Your task to perform on an android device: Search for Italian restaurants on Maps Image 0: 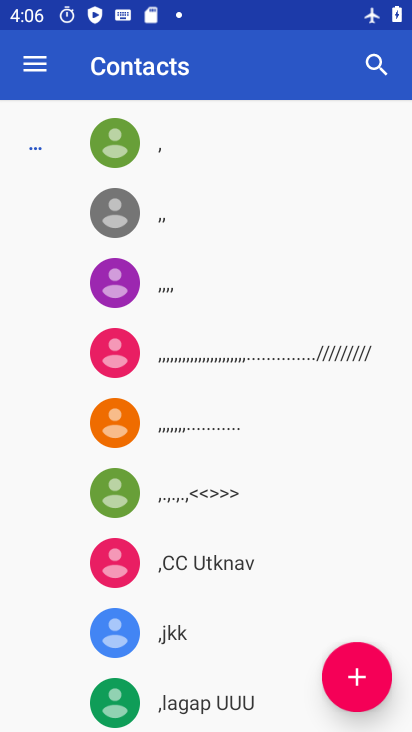
Step 0: press home button
Your task to perform on an android device: Search for Italian restaurants on Maps Image 1: 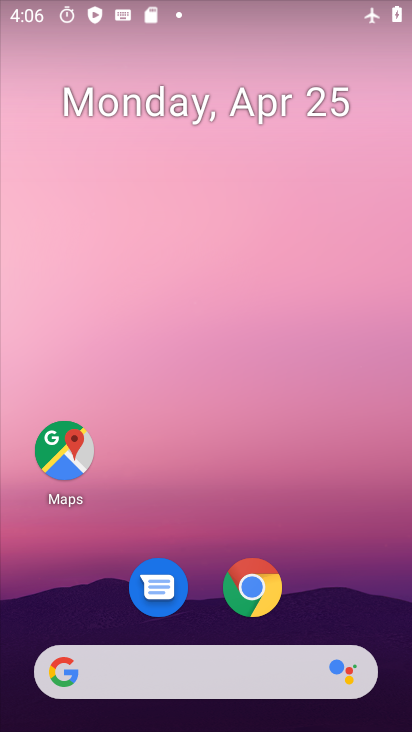
Step 1: click (74, 447)
Your task to perform on an android device: Search for Italian restaurants on Maps Image 2: 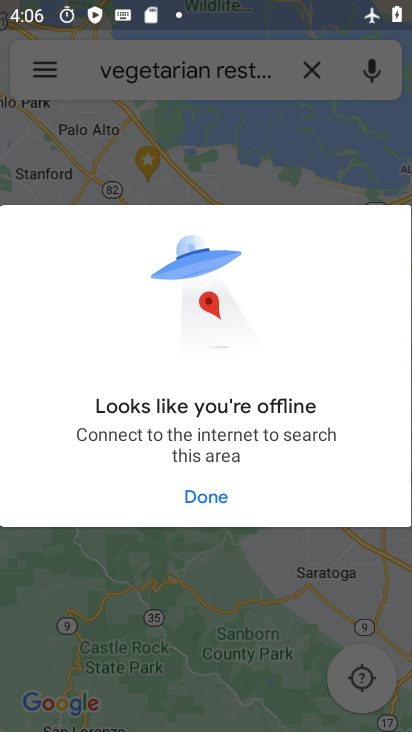
Step 2: click (208, 500)
Your task to perform on an android device: Search for Italian restaurants on Maps Image 3: 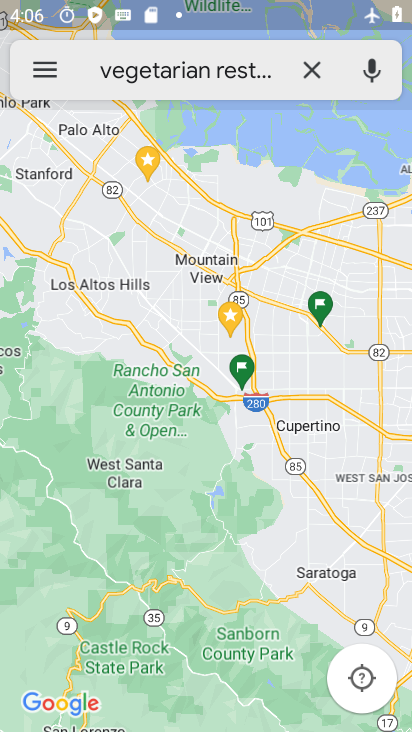
Step 3: click (226, 86)
Your task to perform on an android device: Search for Italian restaurants on Maps Image 4: 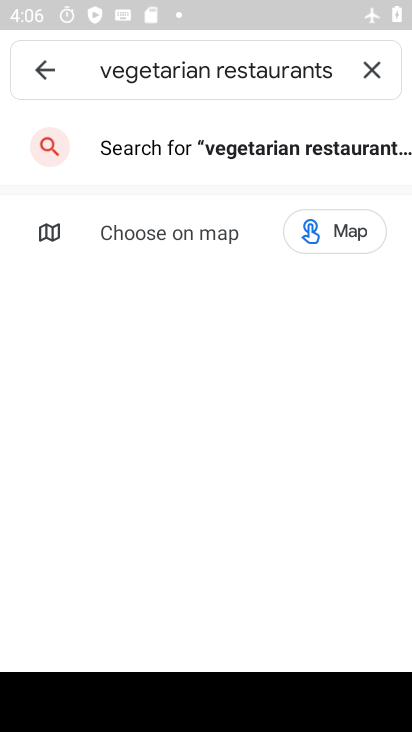
Step 4: click (363, 65)
Your task to perform on an android device: Search for Italian restaurants on Maps Image 5: 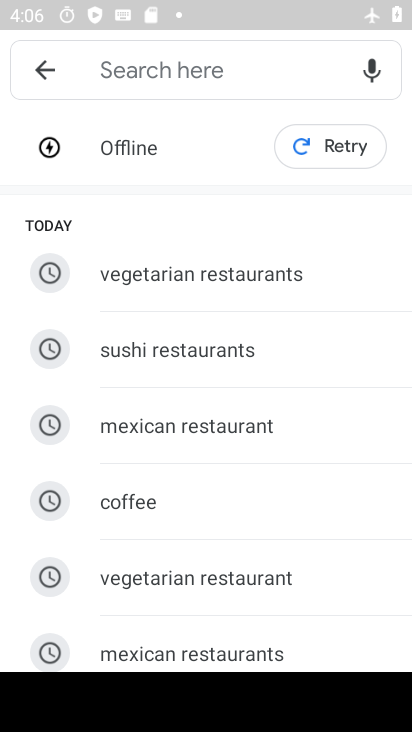
Step 5: type "Italian restaurants"
Your task to perform on an android device: Search for Italian restaurants on Maps Image 6: 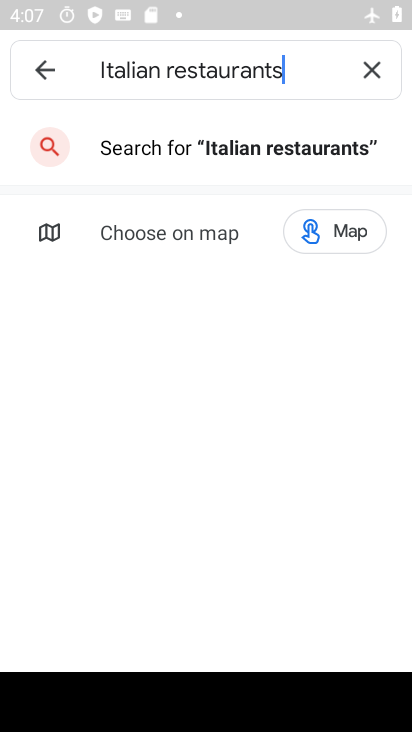
Step 6: press enter
Your task to perform on an android device: Search for Italian restaurants on Maps Image 7: 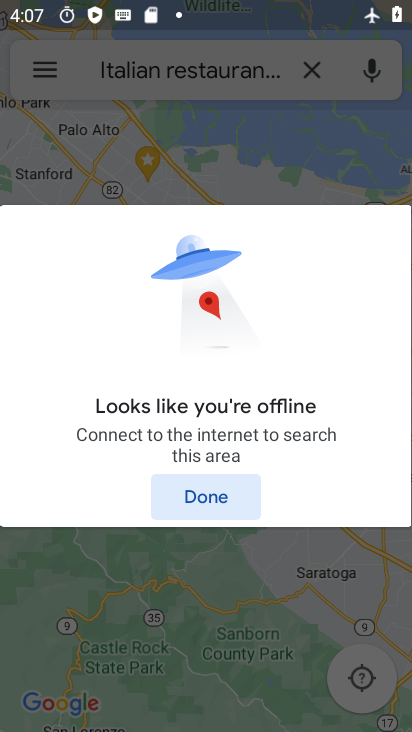
Step 7: task complete